Your task to perform on an android device: turn on airplane mode Image 0: 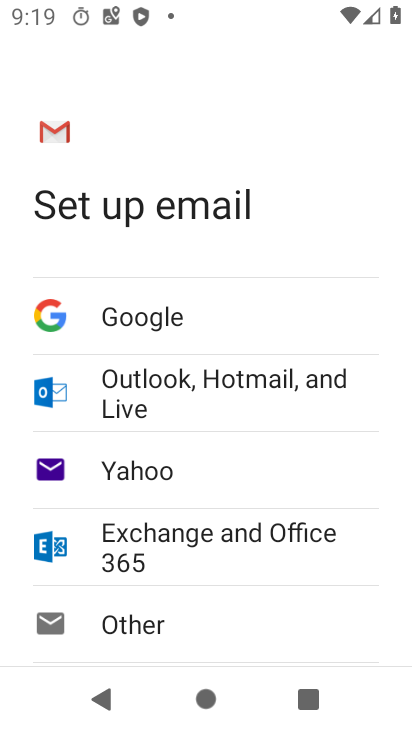
Step 0: press home button
Your task to perform on an android device: turn on airplane mode Image 1: 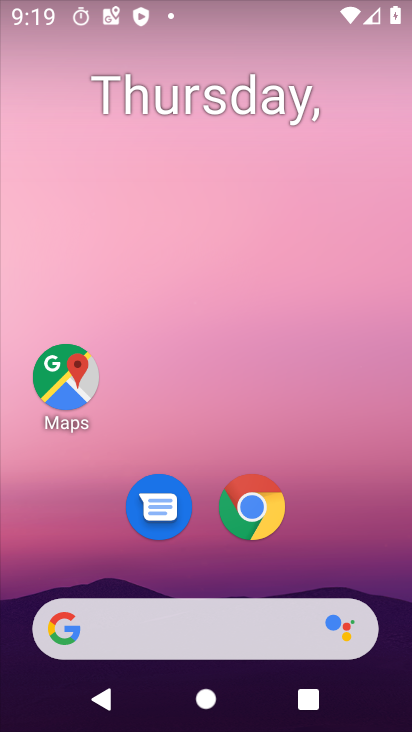
Step 1: drag from (205, 505) to (319, 4)
Your task to perform on an android device: turn on airplane mode Image 2: 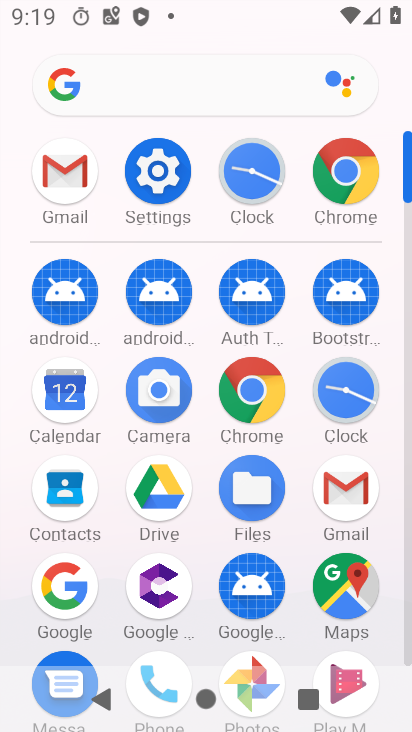
Step 2: click (150, 186)
Your task to perform on an android device: turn on airplane mode Image 3: 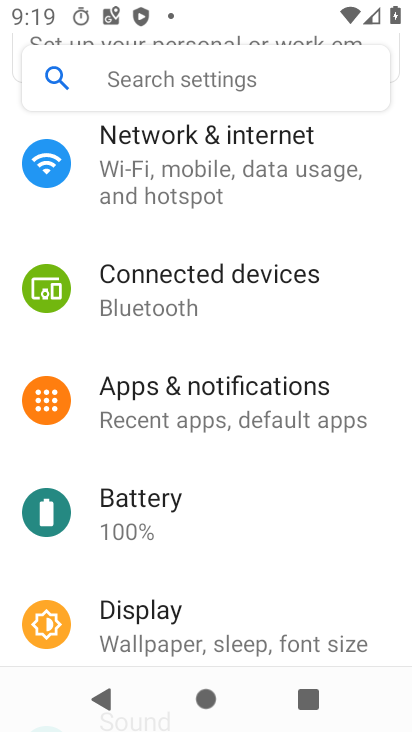
Step 3: drag from (244, 245) to (233, 491)
Your task to perform on an android device: turn on airplane mode Image 4: 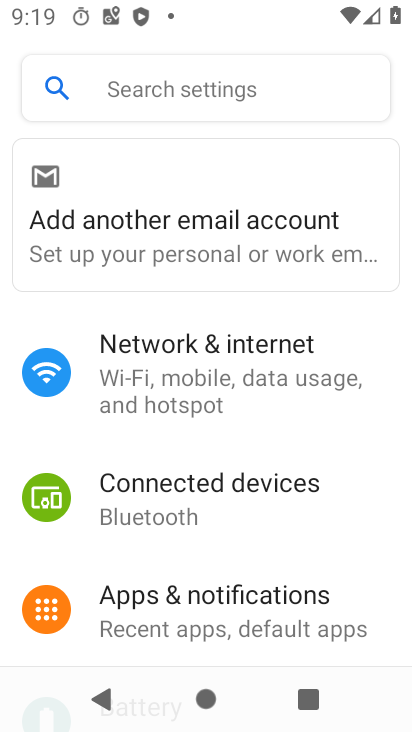
Step 4: click (245, 376)
Your task to perform on an android device: turn on airplane mode Image 5: 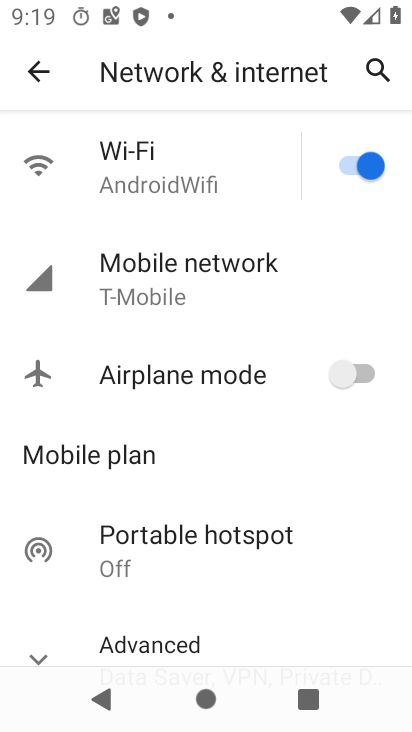
Step 5: click (305, 370)
Your task to perform on an android device: turn on airplane mode Image 6: 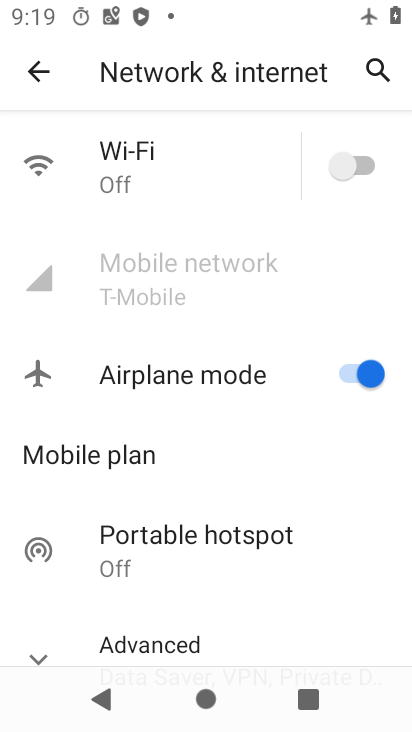
Step 6: task complete